Your task to perform on an android device: Go to CNN.com Image 0: 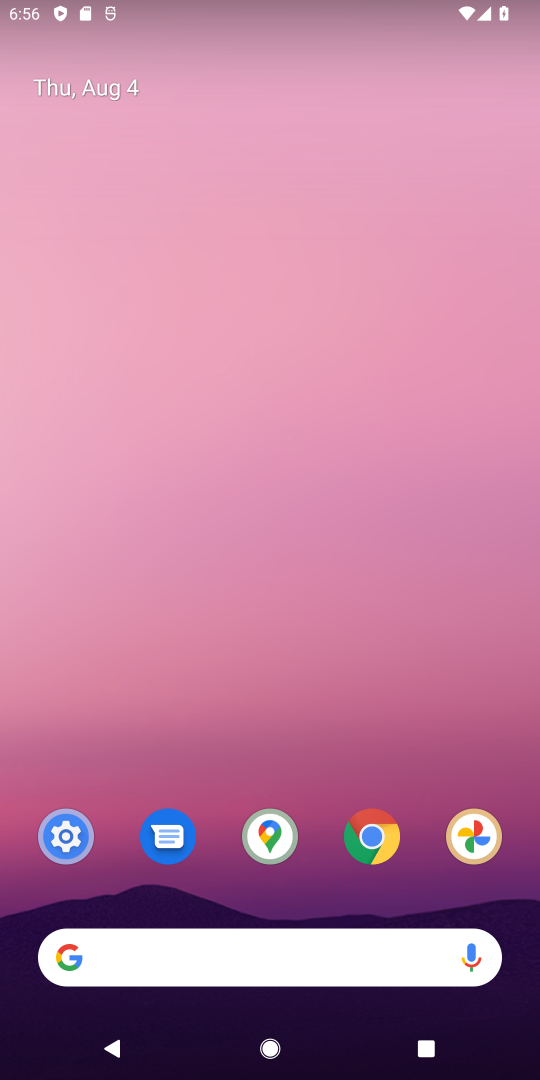
Step 0: click (353, 839)
Your task to perform on an android device: Go to CNN.com Image 1: 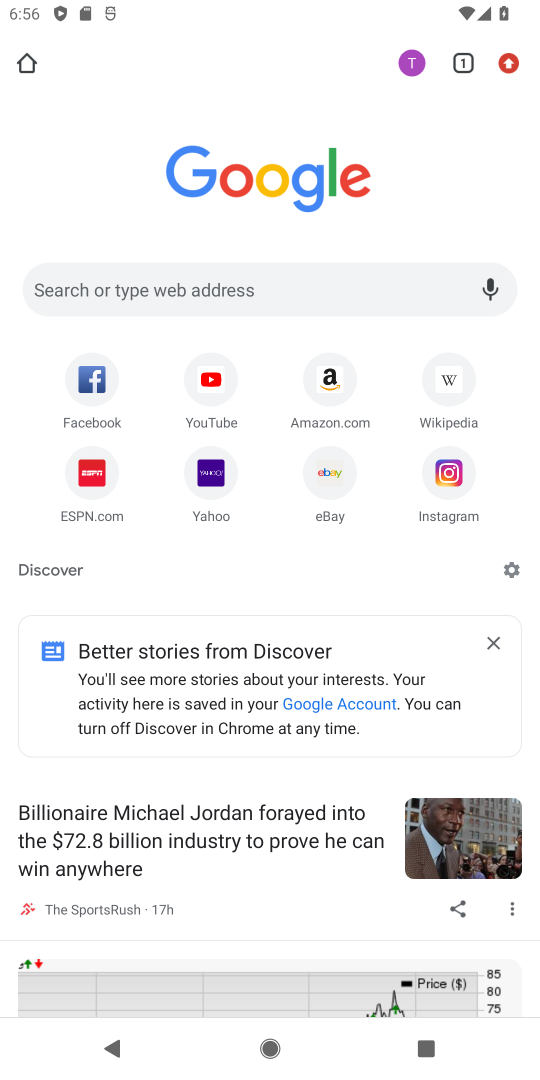
Step 1: click (196, 281)
Your task to perform on an android device: Go to CNN.com Image 2: 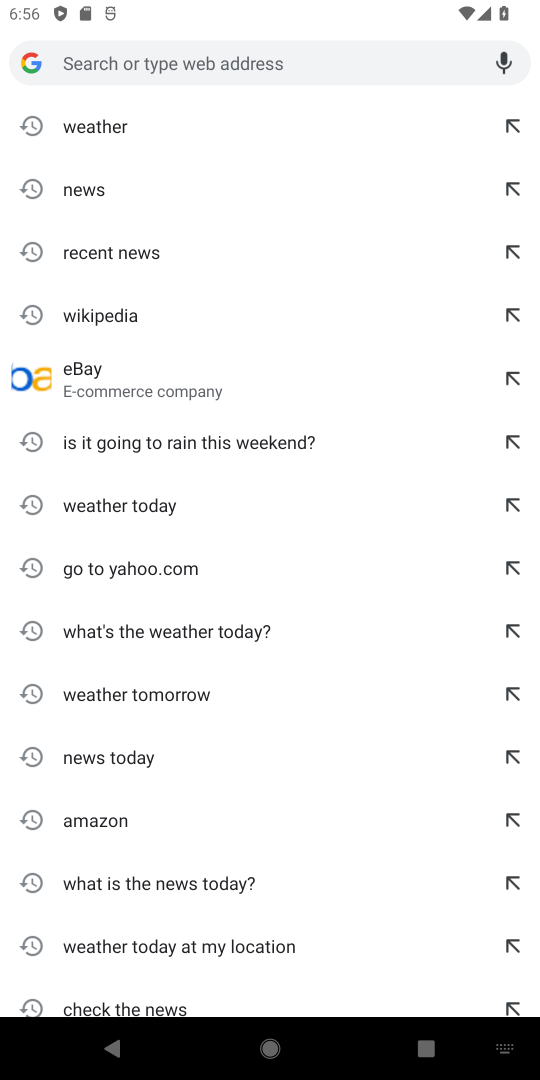
Step 2: type "cnn.com"
Your task to perform on an android device: Go to CNN.com Image 3: 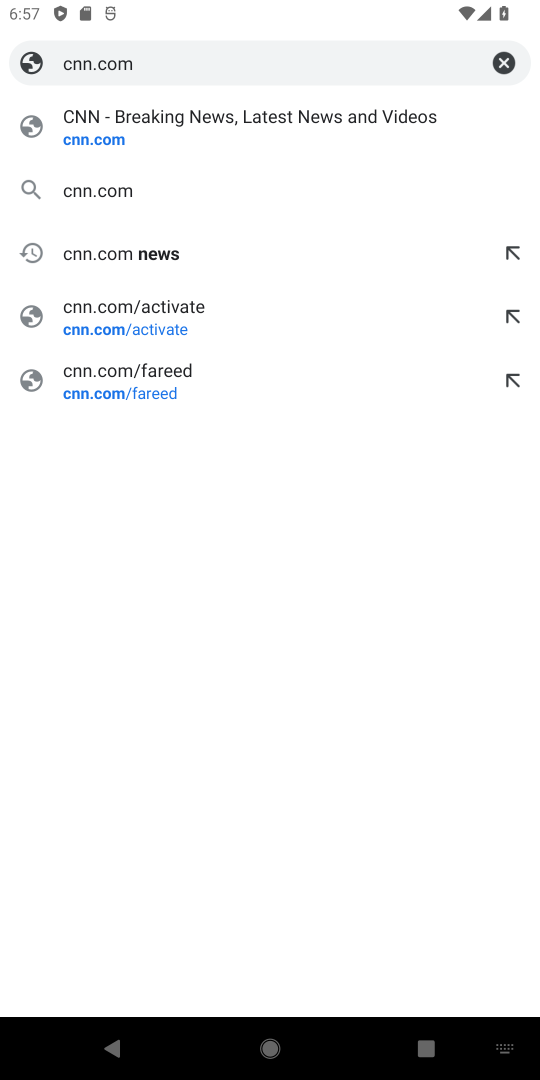
Step 3: click (101, 135)
Your task to perform on an android device: Go to CNN.com Image 4: 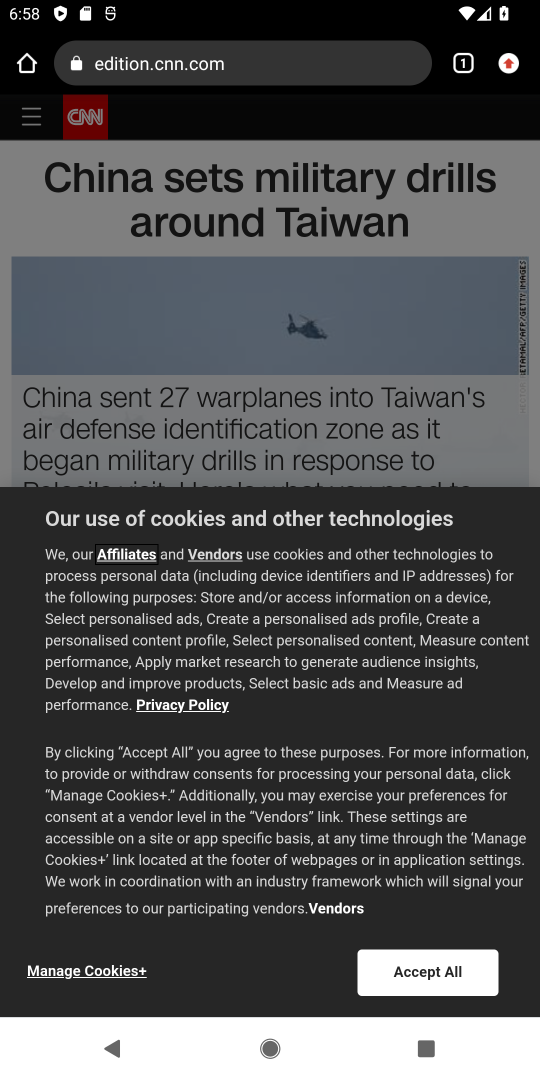
Step 4: task complete